Your task to perform on an android device: Open Android settings Image 0: 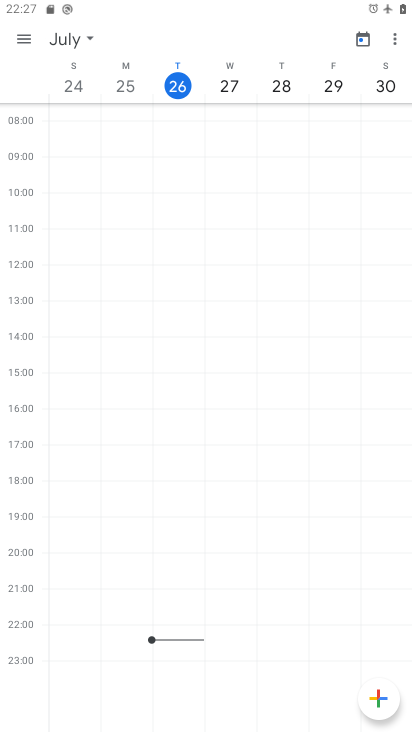
Step 0: press home button
Your task to perform on an android device: Open Android settings Image 1: 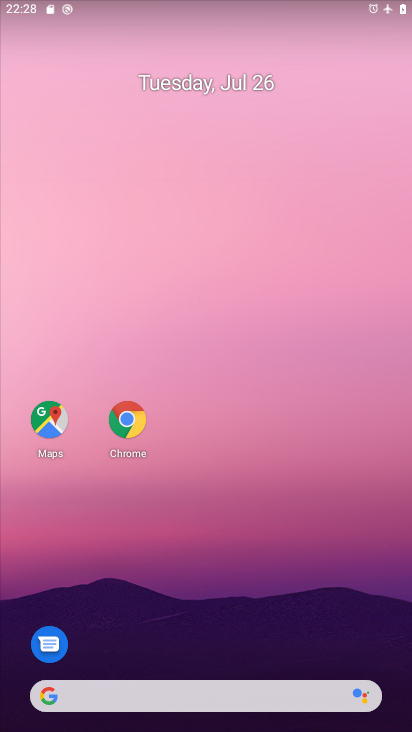
Step 1: drag from (86, 638) to (148, 152)
Your task to perform on an android device: Open Android settings Image 2: 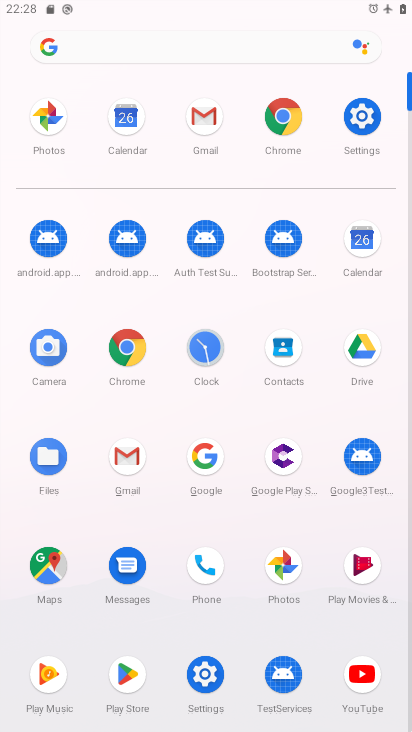
Step 2: click (361, 109)
Your task to perform on an android device: Open Android settings Image 3: 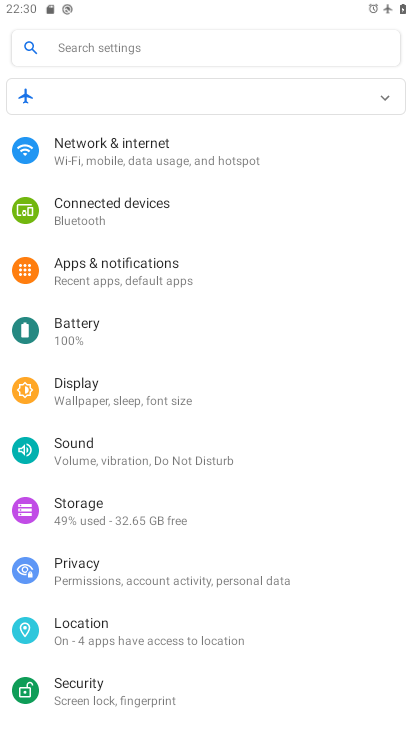
Step 3: task complete